Your task to perform on an android device: Go to Yahoo.com Image 0: 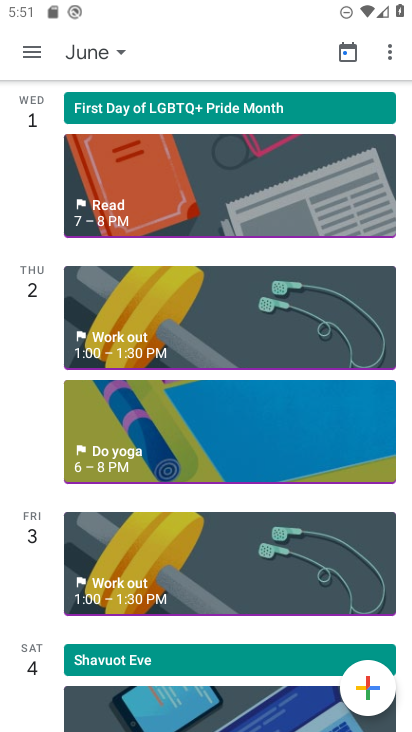
Step 0: press home button
Your task to perform on an android device: Go to Yahoo.com Image 1: 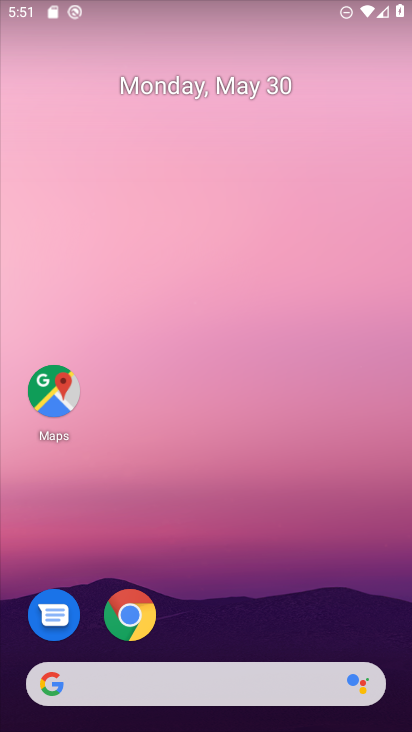
Step 1: click (120, 626)
Your task to perform on an android device: Go to Yahoo.com Image 2: 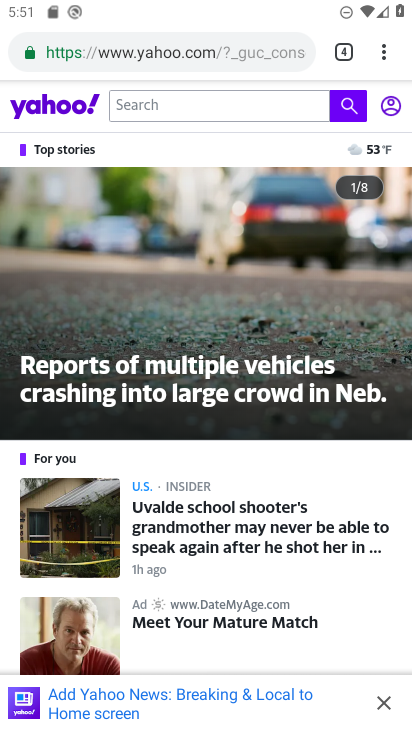
Step 2: task complete